Your task to perform on an android device: turn on priority inbox in the gmail app Image 0: 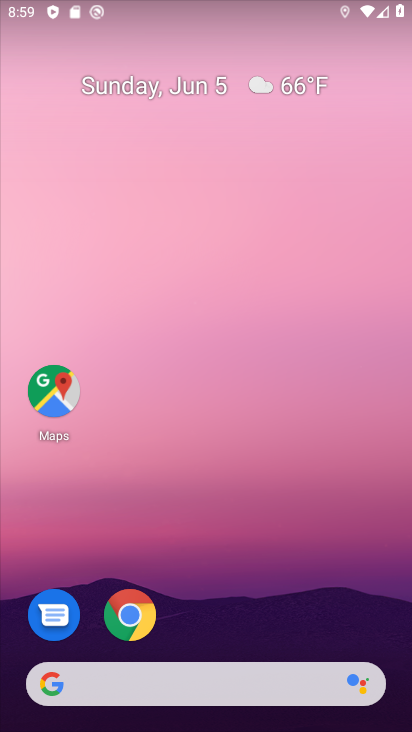
Step 0: drag from (204, 659) to (295, 166)
Your task to perform on an android device: turn on priority inbox in the gmail app Image 1: 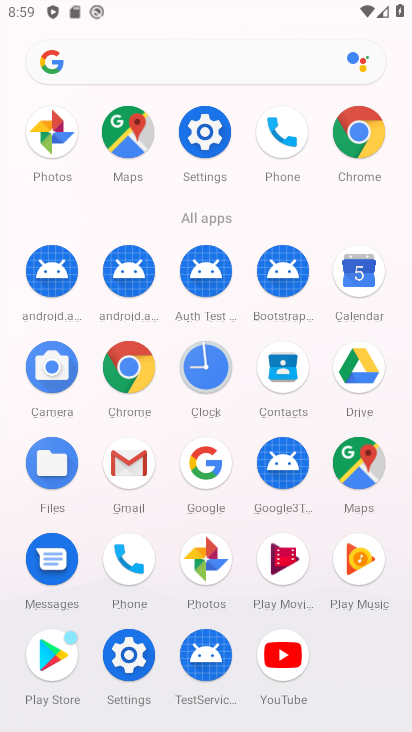
Step 1: click (132, 472)
Your task to perform on an android device: turn on priority inbox in the gmail app Image 2: 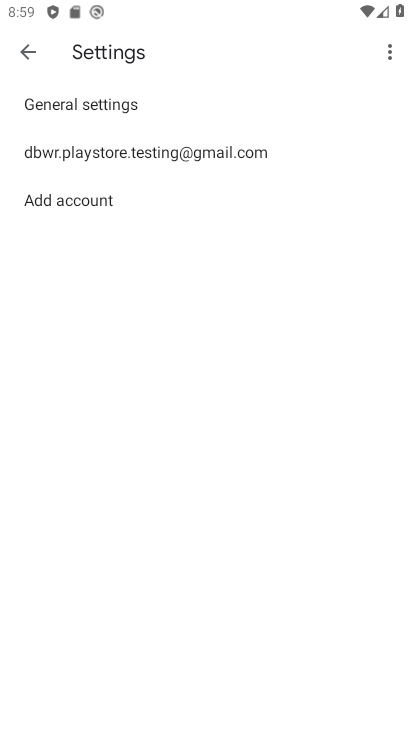
Step 2: click (224, 166)
Your task to perform on an android device: turn on priority inbox in the gmail app Image 3: 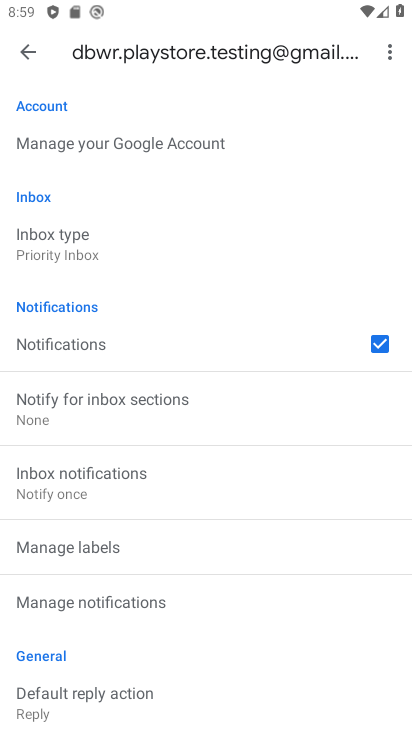
Step 3: task complete